Your task to perform on an android device: What's the weather going to be tomorrow? Image 0: 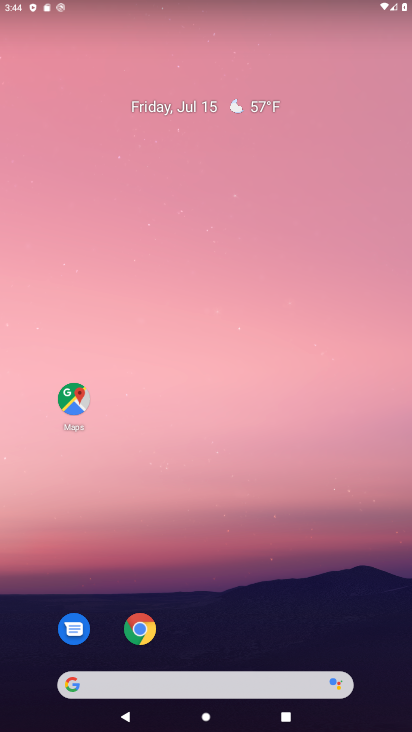
Step 0: press home button
Your task to perform on an android device: What's the weather going to be tomorrow? Image 1: 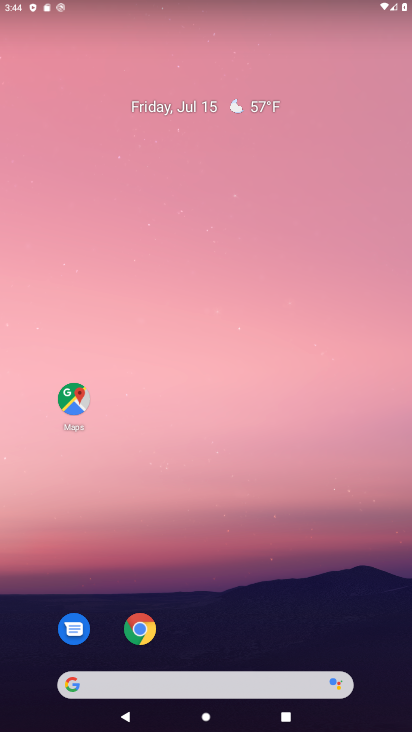
Step 1: click (72, 687)
Your task to perform on an android device: What's the weather going to be tomorrow? Image 2: 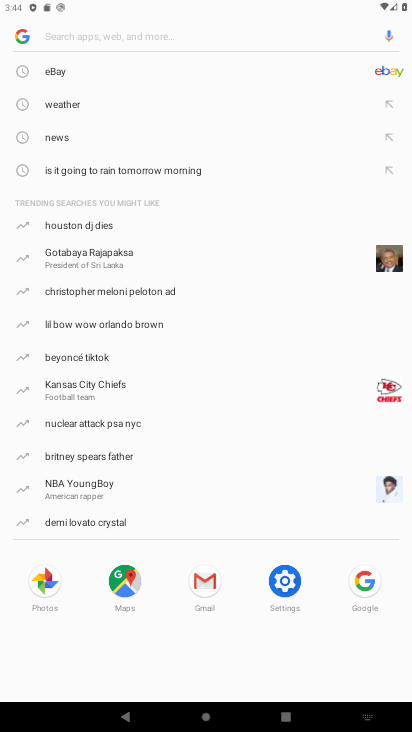
Step 2: type "weather going to be tomorrow"
Your task to perform on an android device: What's the weather going to be tomorrow? Image 3: 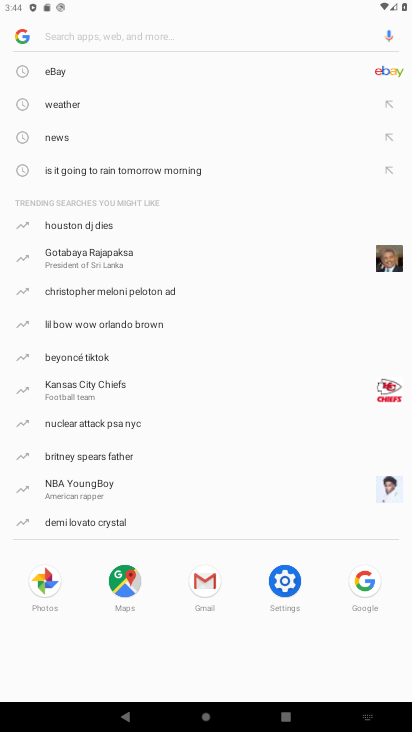
Step 3: click (75, 37)
Your task to perform on an android device: What's the weather going to be tomorrow? Image 4: 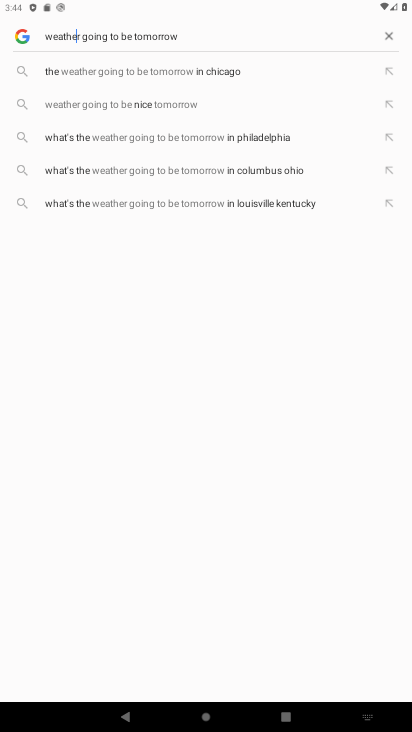
Step 4: press enter
Your task to perform on an android device: What's the weather going to be tomorrow? Image 5: 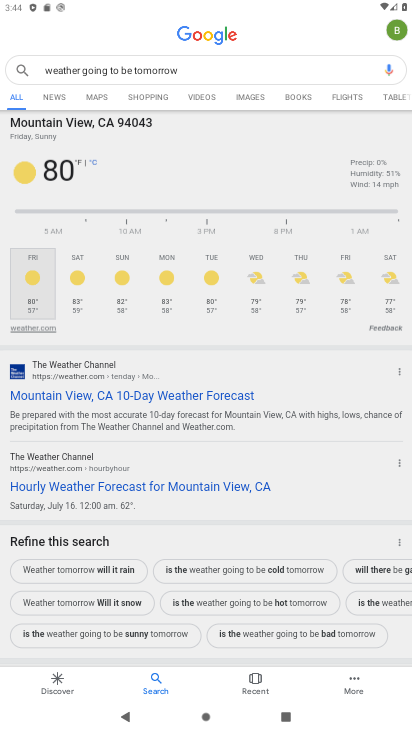
Step 5: task complete